Your task to perform on an android device: Go to calendar. Show me events next week Image 0: 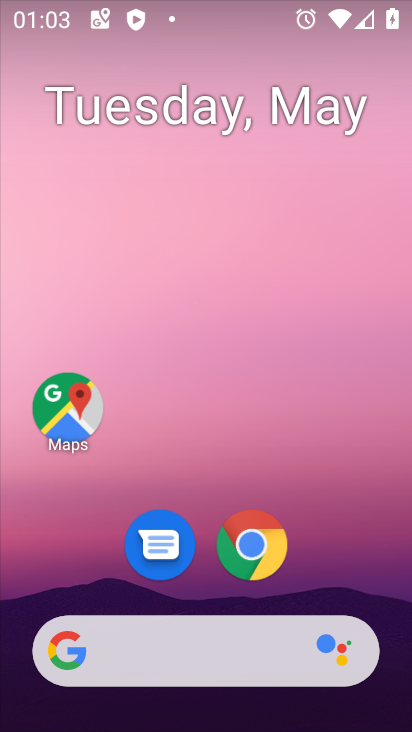
Step 0: drag from (337, 588) to (327, 8)
Your task to perform on an android device: Go to calendar. Show me events next week Image 1: 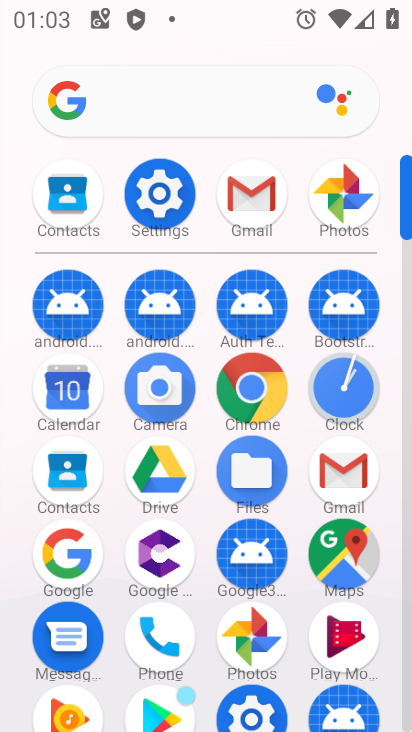
Step 1: click (64, 399)
Your task to perform on an android device: Go to calendar. Show me events next week Image 2: 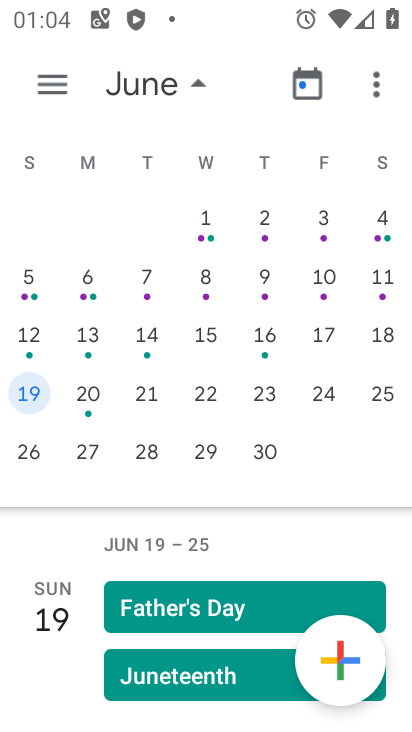
Step 2: drag from (10, 357) to (8, 495)
Your task to perform on an android device: Go to calendar. Show me events next week Image 3: 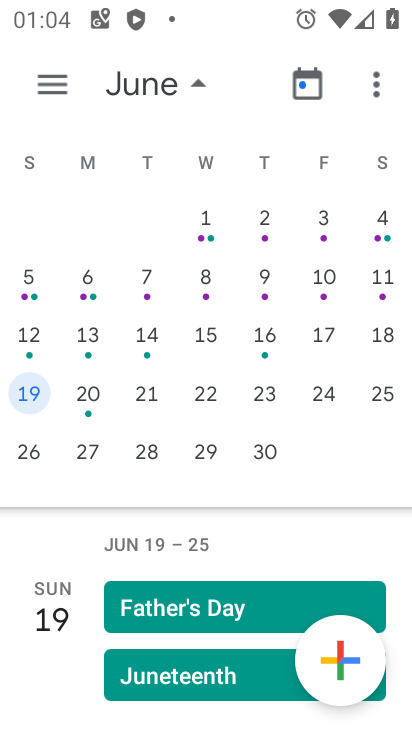
Step 3: drag from (61, 406) to (411, 437)
Your task to perform on an android device: Go to calendar. Show me events next week Image 4: 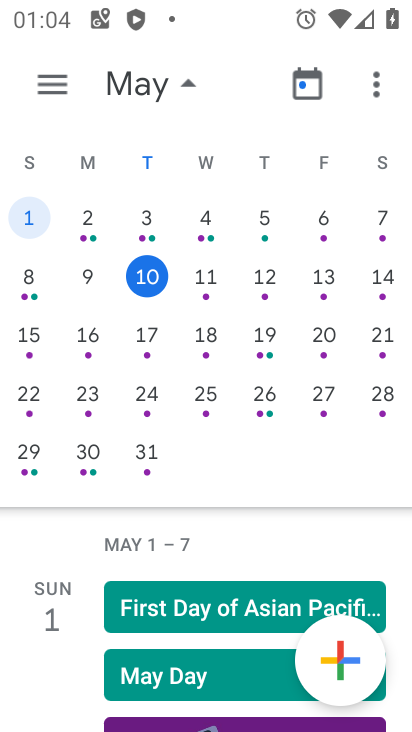
Step 4: click (32, 340)
Your task to perform on an android device: Go to calendar. Show me events next week Image 5: 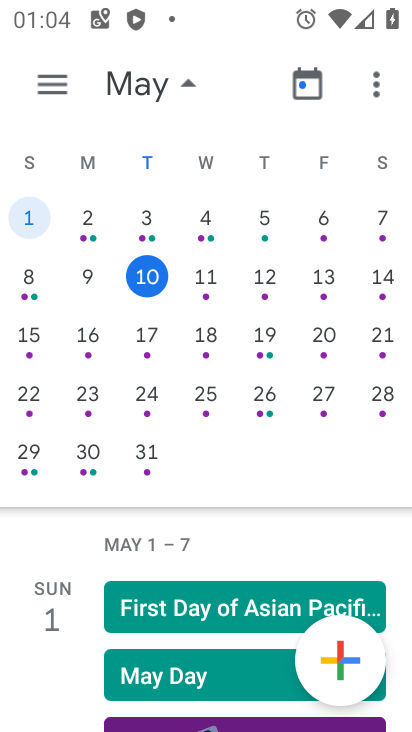
Step 5: click (50, 339)
Your task to perform on an android device: Go to calendar. Show me events next week Image 6: 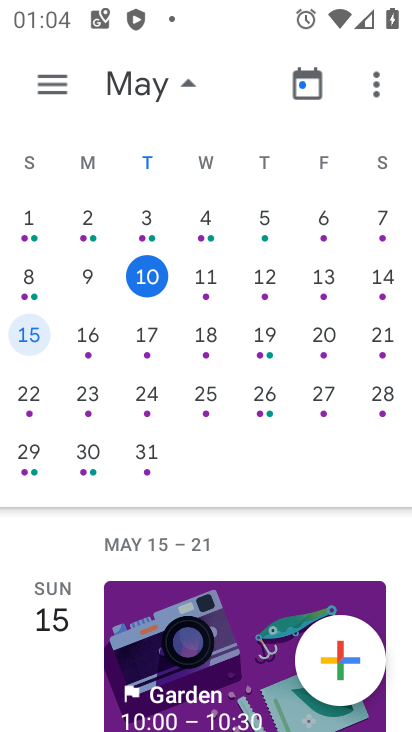
Step 6: click (93, 343)
Your task to perform on an android device: Go to calendar. Show me events next week Image 7: 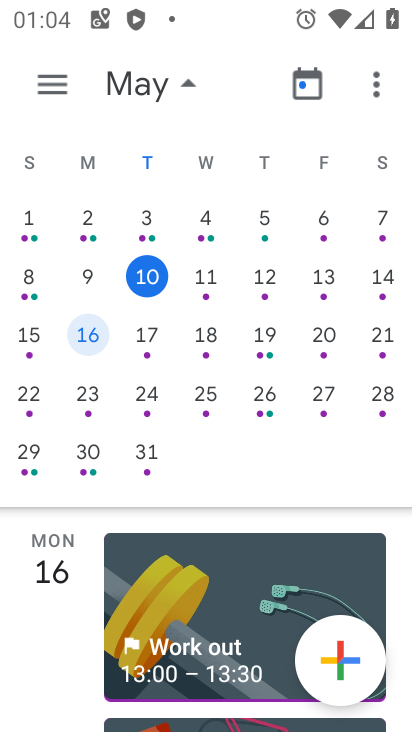
Step 7: click (129, 343)
Your task to perform on an android device: Go to calendar. Show me events next week Image 8: 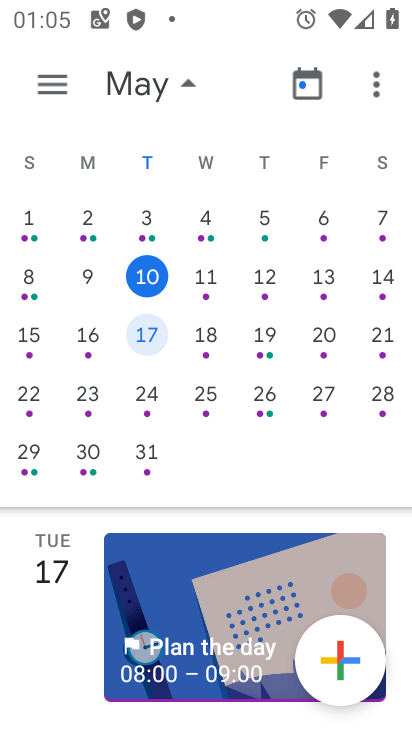
Step 8: click (142, 347)
Your task to perform on an android device: Go to calendar. Show me events next week Image 9: 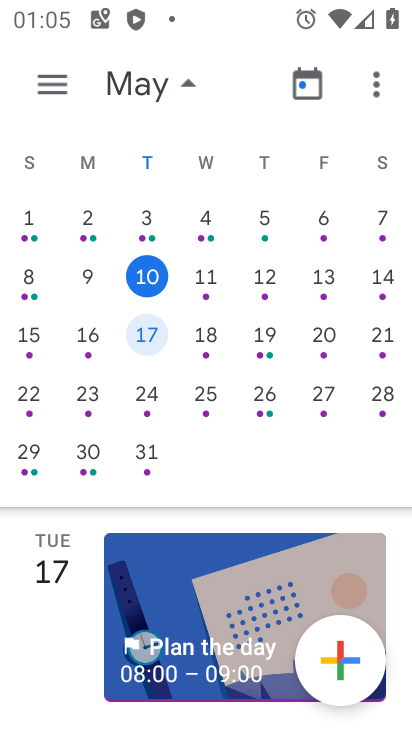
Step 9: click (205, 347)
Your task to perform on an android device: Go to calendar. Show me events next week Image 10: 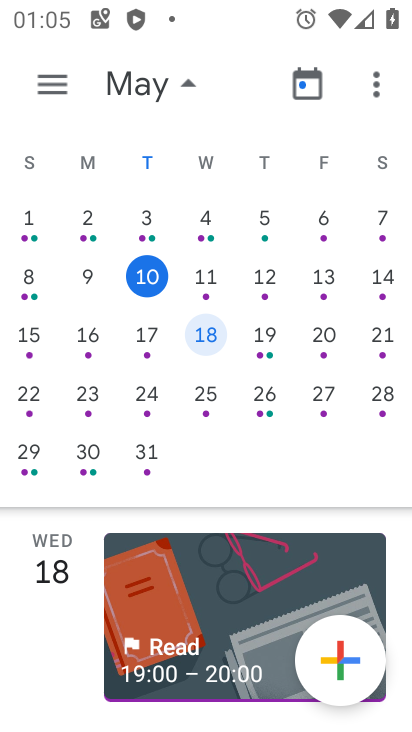
Step 10: click (267, 352)
Your task to perform on an android device: Go to calendar. Show me events next week Image 11: 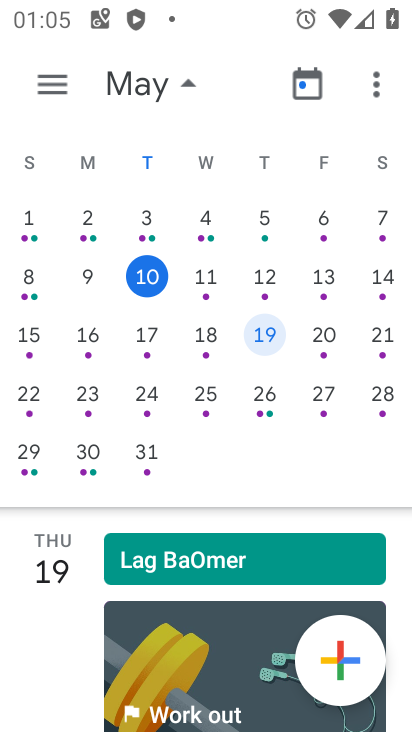
Step 11: click (315, 350)
Your task to perform on an android device: Go to calendar. Show me events next week Image 12: 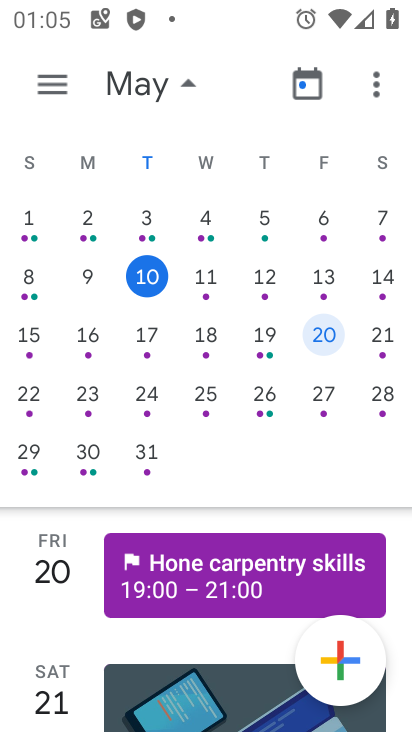
Step 12: click (388, 344)
Your task to perform on an android device: Go to calendar. Show me events next week Image 13: 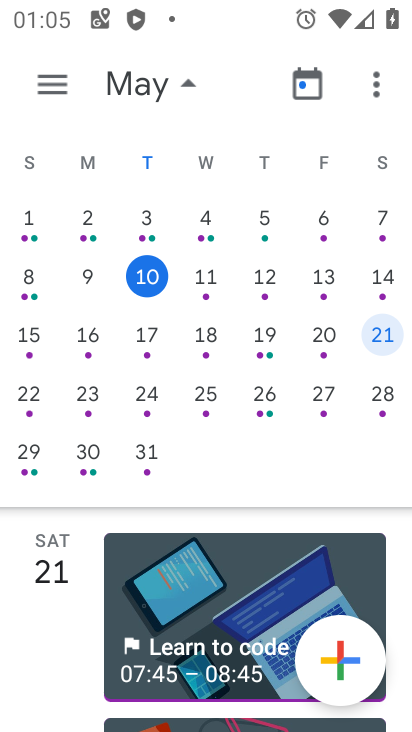
Step 13: task complete